Your task to perform on an android device: Go to battery settings Image 0: 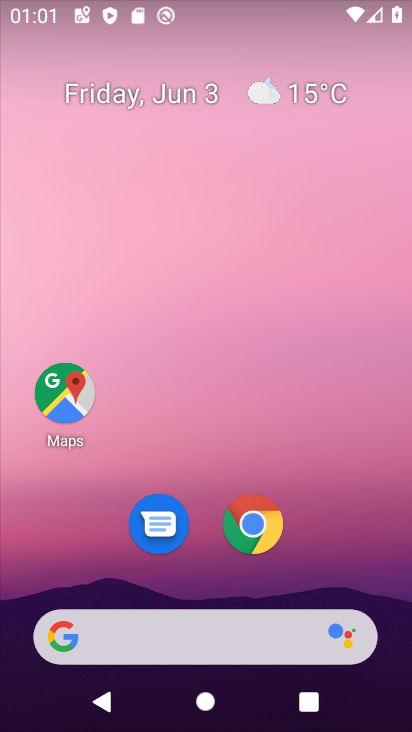
Step 0: drag from (223, 477) to (276, 1)
Your task to perform on an android device: Go to battery settings Image 1: 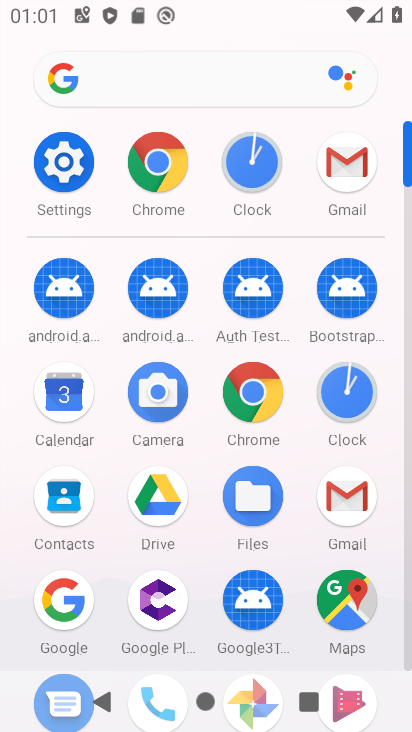
Step 1: click (62, 143)
Your task to perform on an android device: Go to battery settings Image 2: 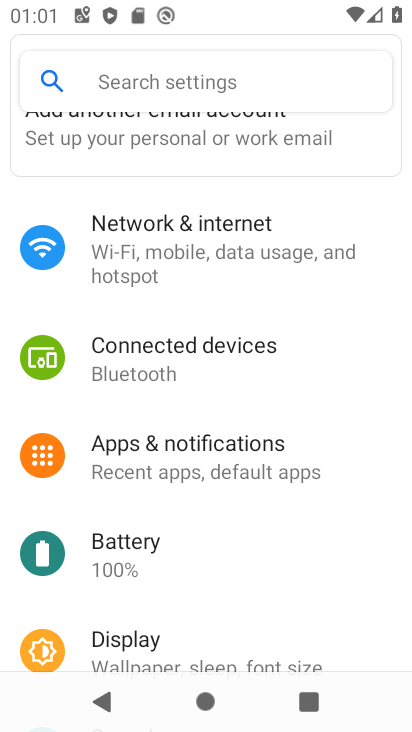
Step 2: click (193, 551)
Your task to perform on an android device: Go to battery settings Image 3: 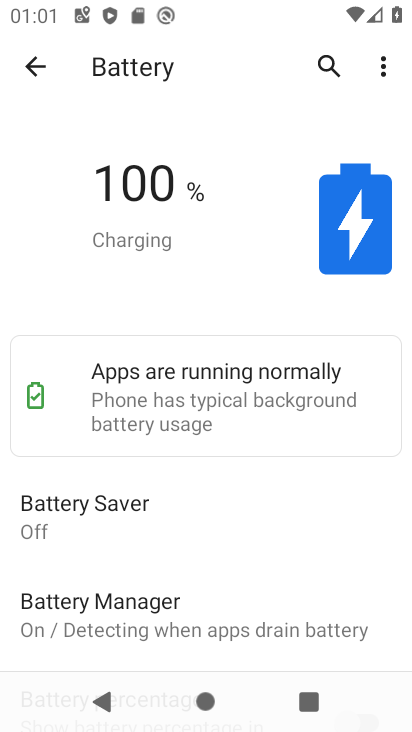
Step 3: task complete